Your task to perform on an android device: star an email in the gmail app Image 0: 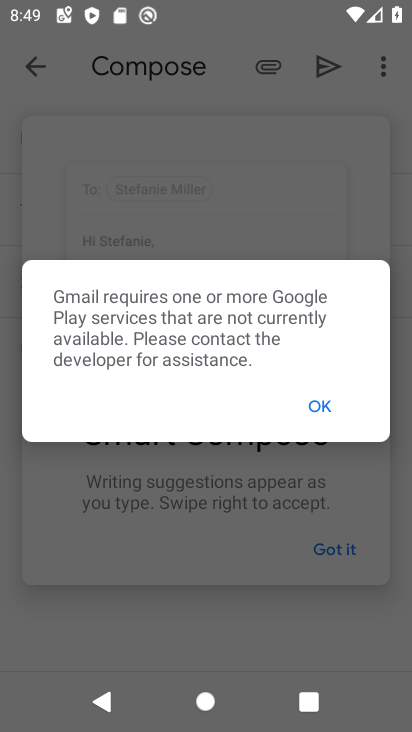
Step 0: press home button
Your task to perform on an android device: star an email in the gmail app Image 1: 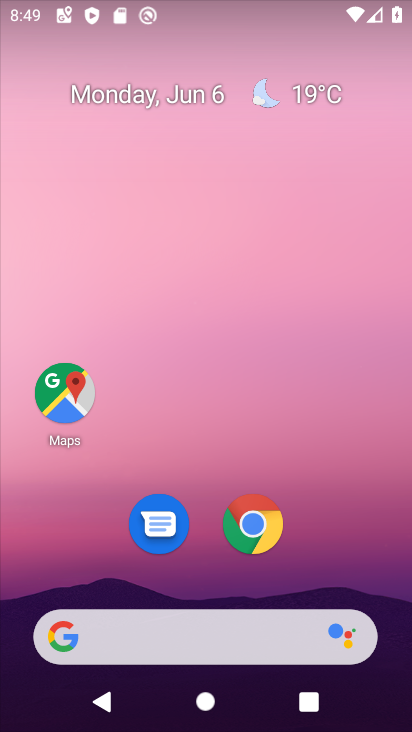
Step 1: drag from (309, 540) to (313, 37)
Your task to perform on an android device: star an email in the gmail app Image 2: 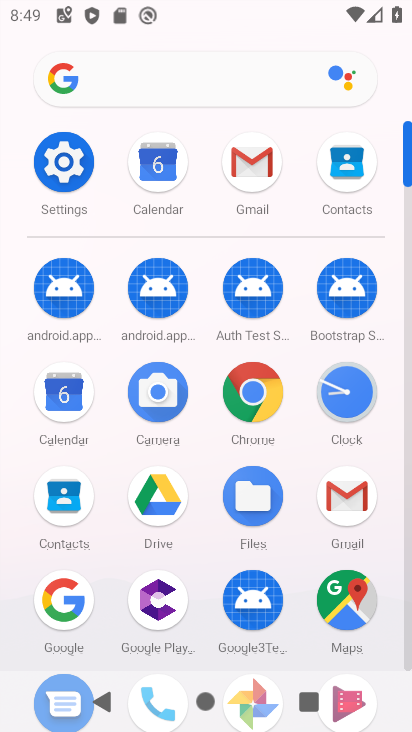
Step 2: click (246, 174)
Your task to perform on an android device: star an email in the gmail app Image 3: 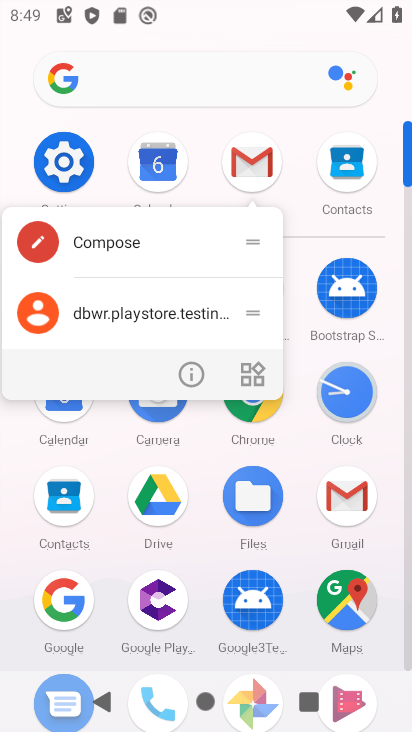
Step 3: click (259, 157)
Your task to perform on an android device: star an email in the gmail app Image 4: 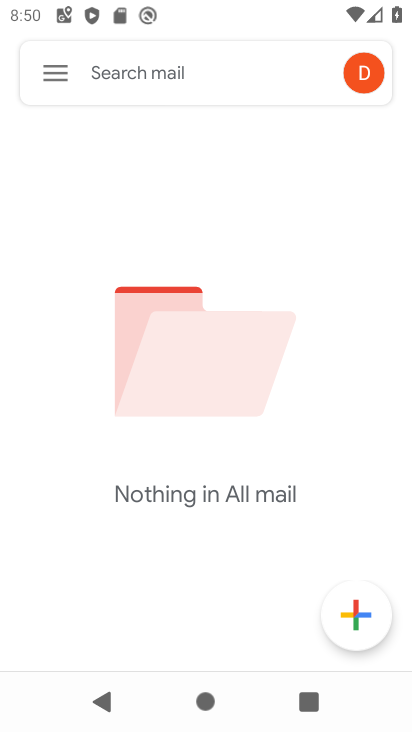
Step 4: task complete